Your task to perform on an android device: Go to wifi settings Image 0: 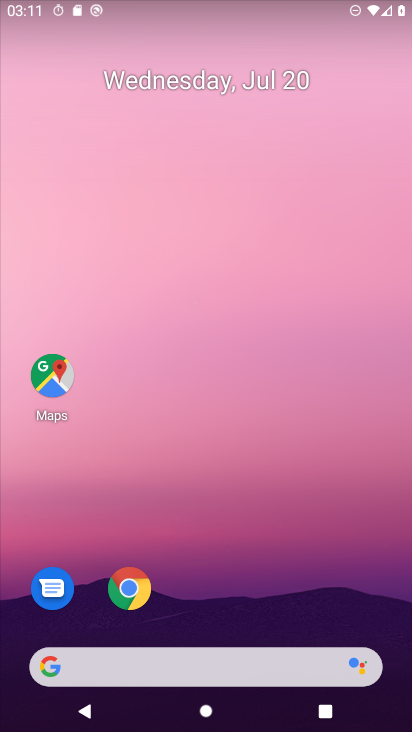
Step 0: drag from (220, 613) to (279, 8)
Your task to perform on an android device: Go to wifi settings Image 1: 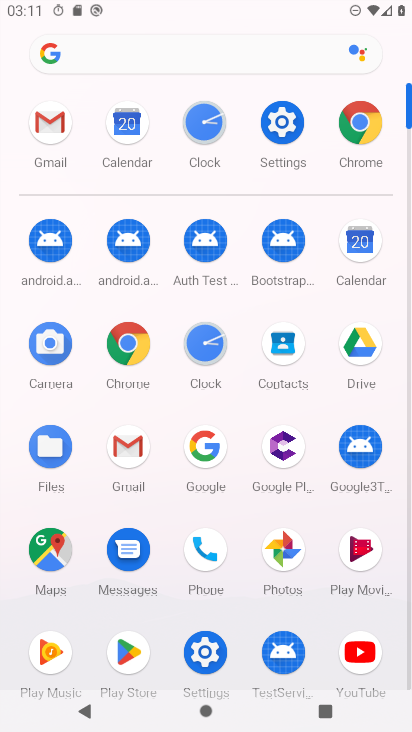
Step 1: click (284, 124)
Your task to perform on an android device: Go to wifi settings Image 2: 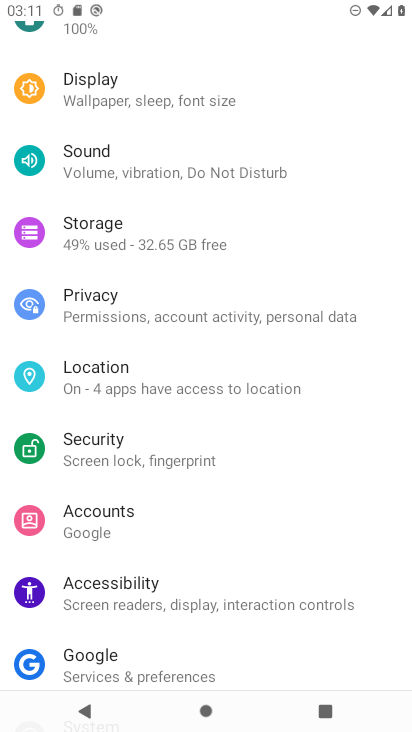
Step 2: drag from (284, 124) to (228, 511)
Your task to perform on an android device: Go to wifi settings Image 3: 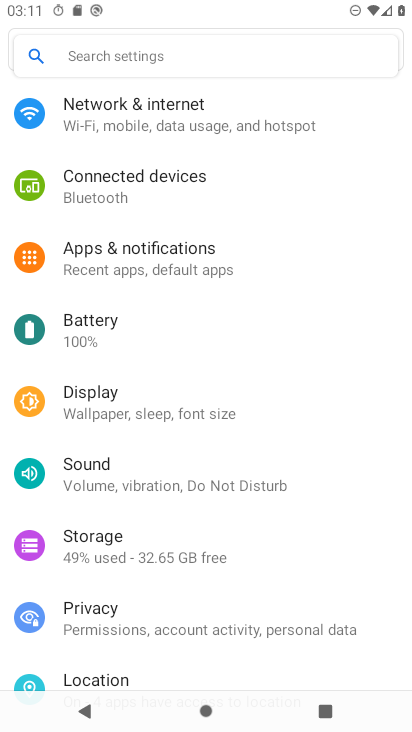
Step 3: click (137, 125)
Your task to perform on an android device: Go to wifi settings Image 4: 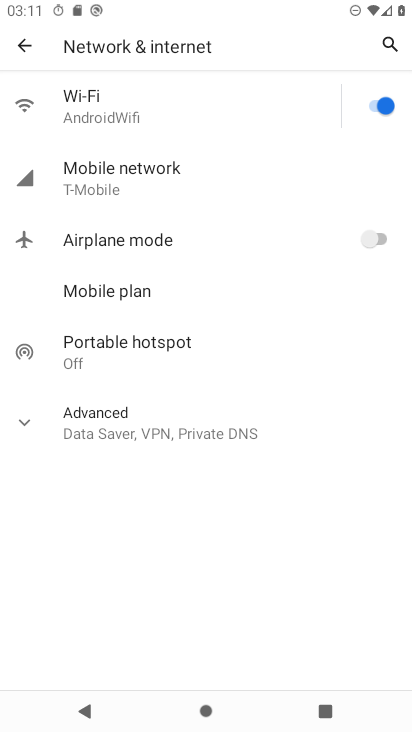
Step 4: click (372, 110)
Your task to perform on an android device: Go to wifi settings Image 5: 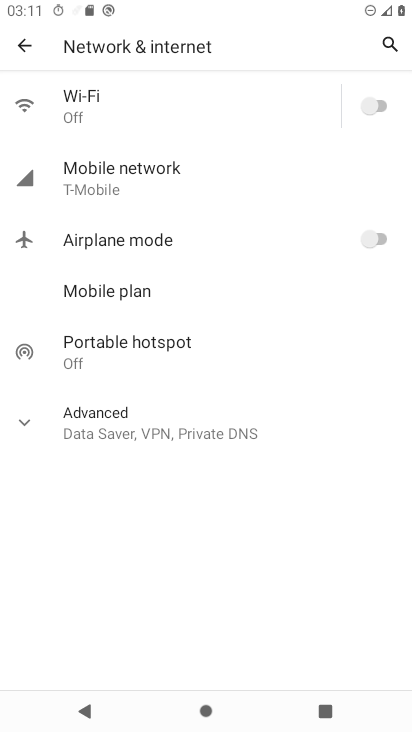
Step 5: task complete